Your task to perform on an android device: Turn off the flashlight Image 0: 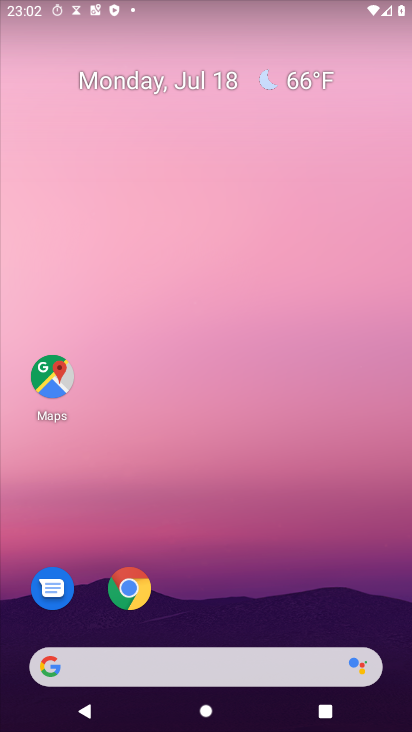
Step 0: press home button
Your task to perform on an android device: Turn off the flashlight Image 1: 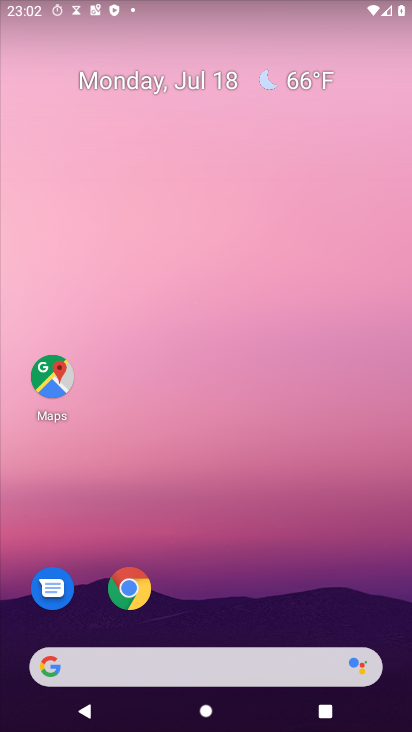
Step 1: task complete